Your task to perform on an android device: toggle notifications settings in the gmail app Image 0: 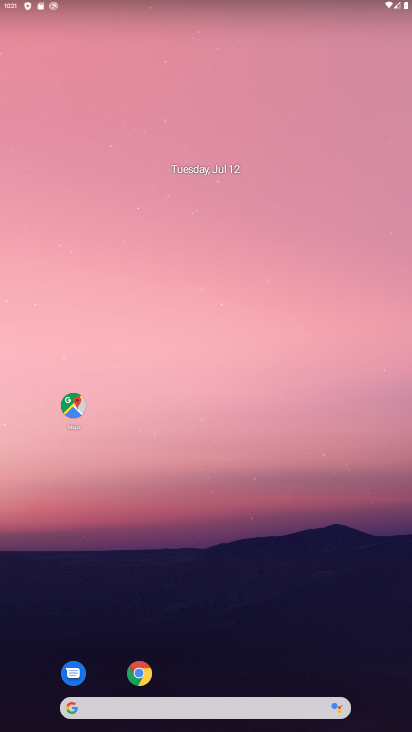
Step 0: drag from (288, 575) to (248, 148)
Your task to perform on an android device: toggle notifications settings in the gmail app Image 1: 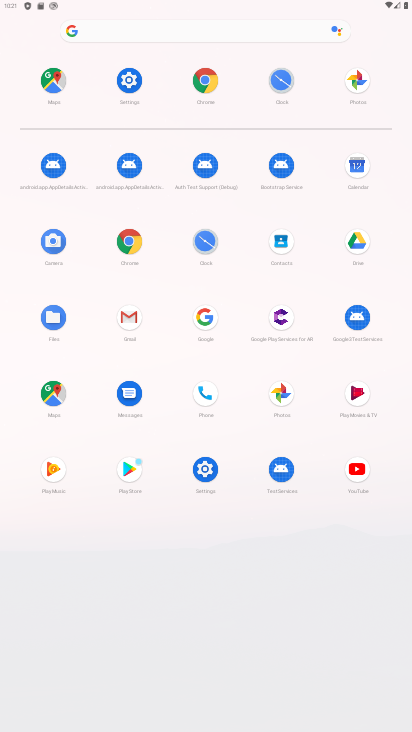
Step 1: click (125, 314)
Your task to perform on an android device: toggle notifications settings in the gmail app Image 2: 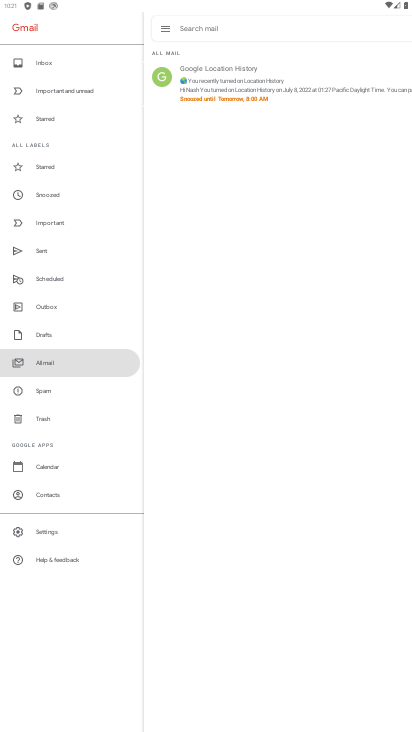
Step 2: click (53, 533)
Your task to perform on an android device: toggle notifications settings in the gmail app Image 3: 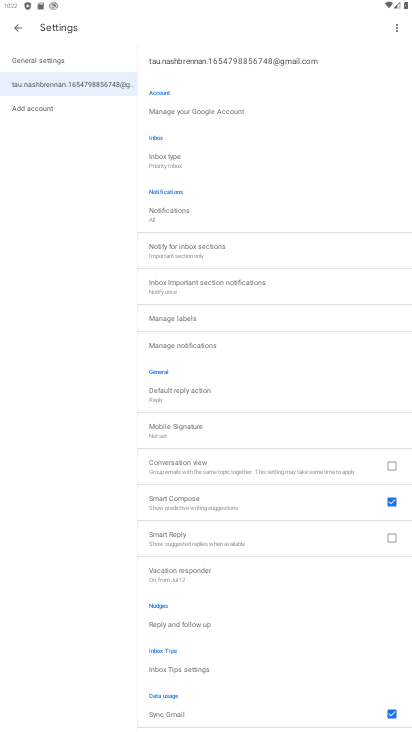
Step 3: click (208, 344)
Your task to perform on an android device: toggle notifications settings in the gmail app Image 4: 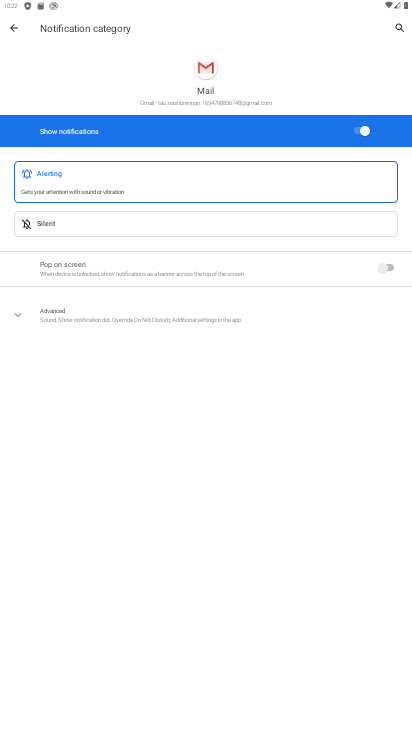
Step 4: click (352, 127)
Your task to perform on an android device: toggle notifications settings in the gmail app Image 5: 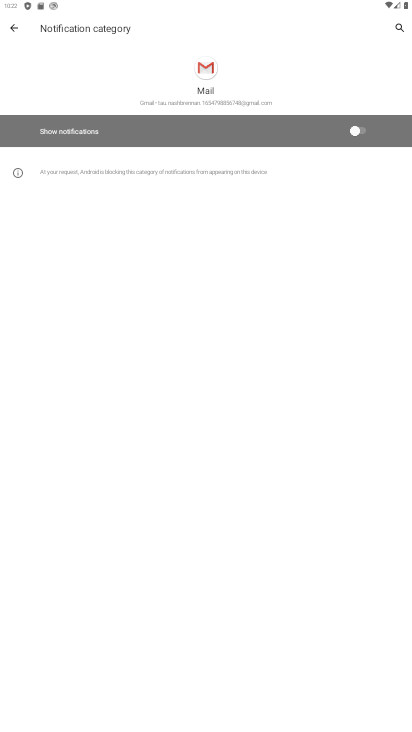
Step 5: task complete